Your task to perform on an android device: Search for the new steph curry shoes on Amazon. Image 0: 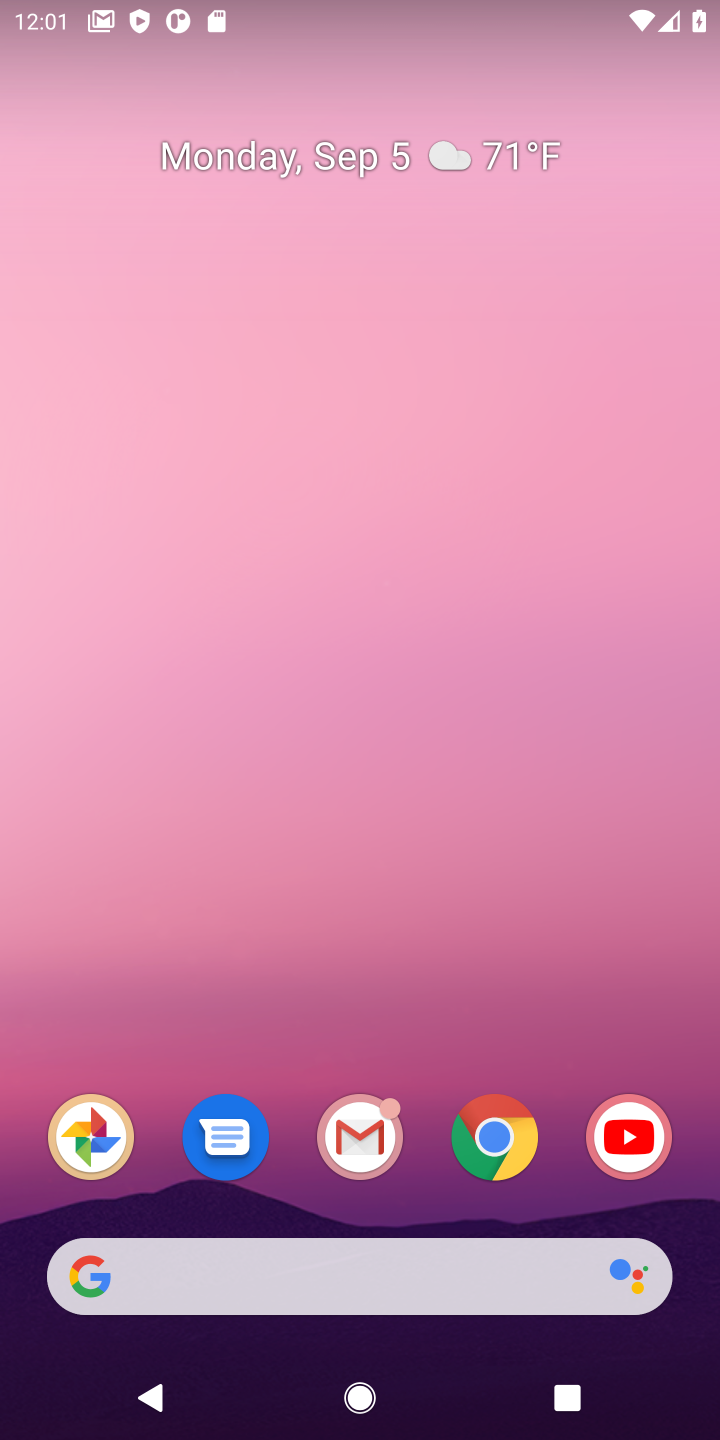
Step 0: click (497, 1140)
Your task to perform on an android device: Search for the new steph curry shoes on Amazon. Image 1: 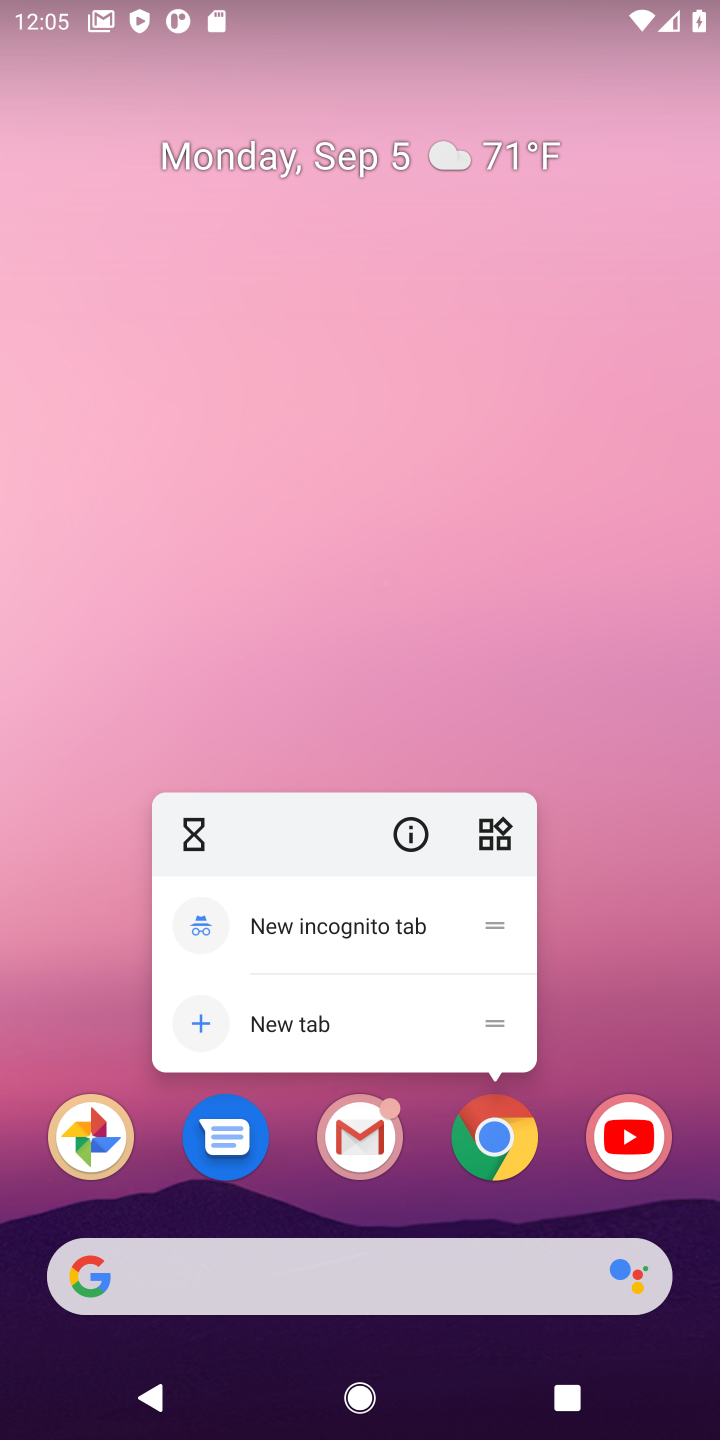
Step 1: click (469, 1142)
Your task to perform on an android device: Search for the new steph curry shoes on Amazon. Image 2: 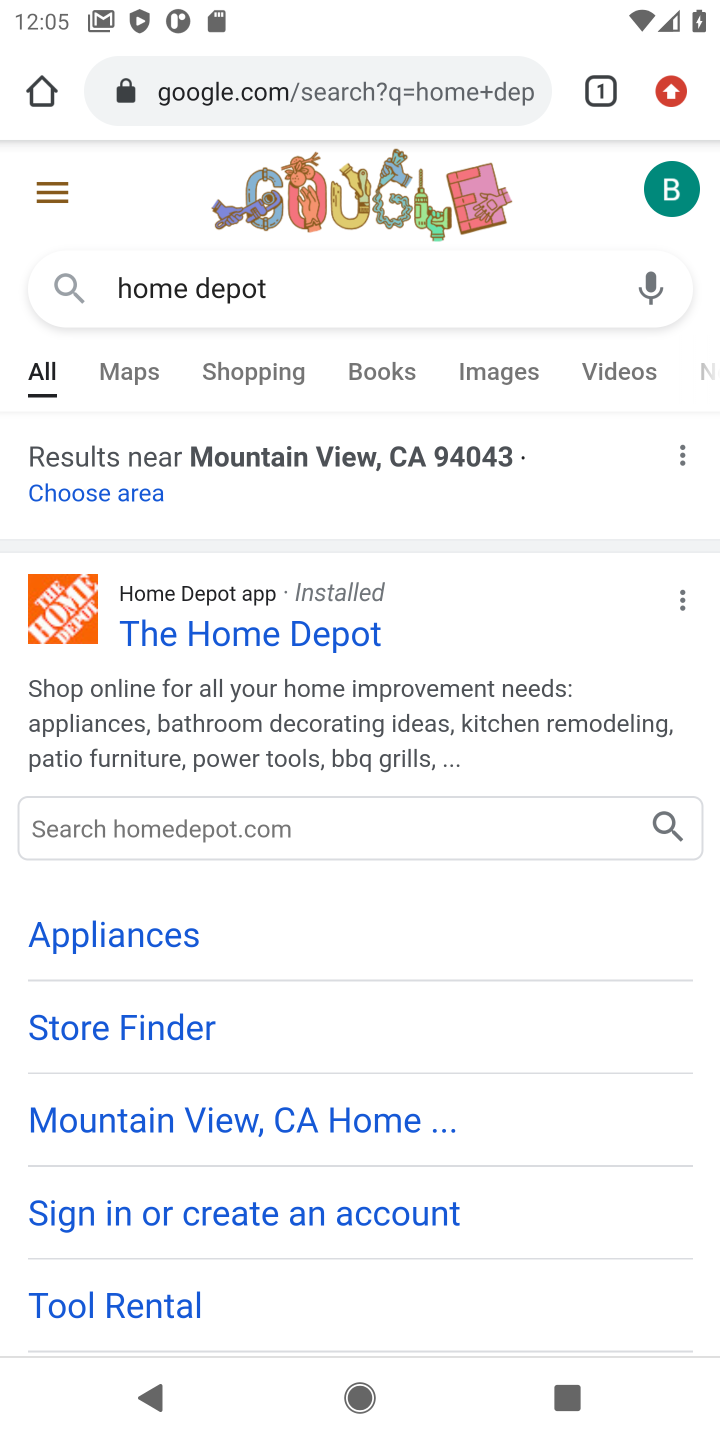
Step 2: click (359, 96)
Your task to perform on an android device: Search for the new steph curry shoes on Amazon. Image 3: 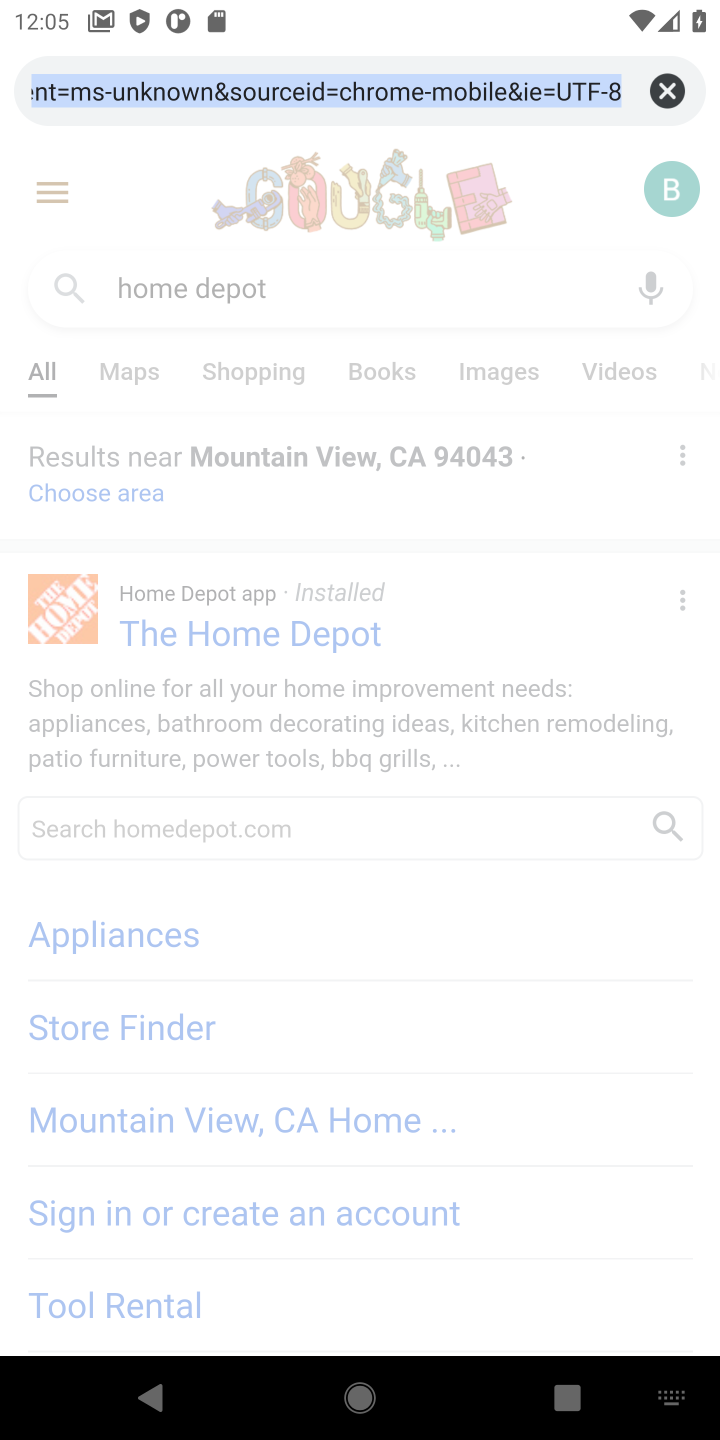
Step 3: type "amazon"
Your task to perform on an android device: Search for the new steph curry shoes on Amazon. Image 4: 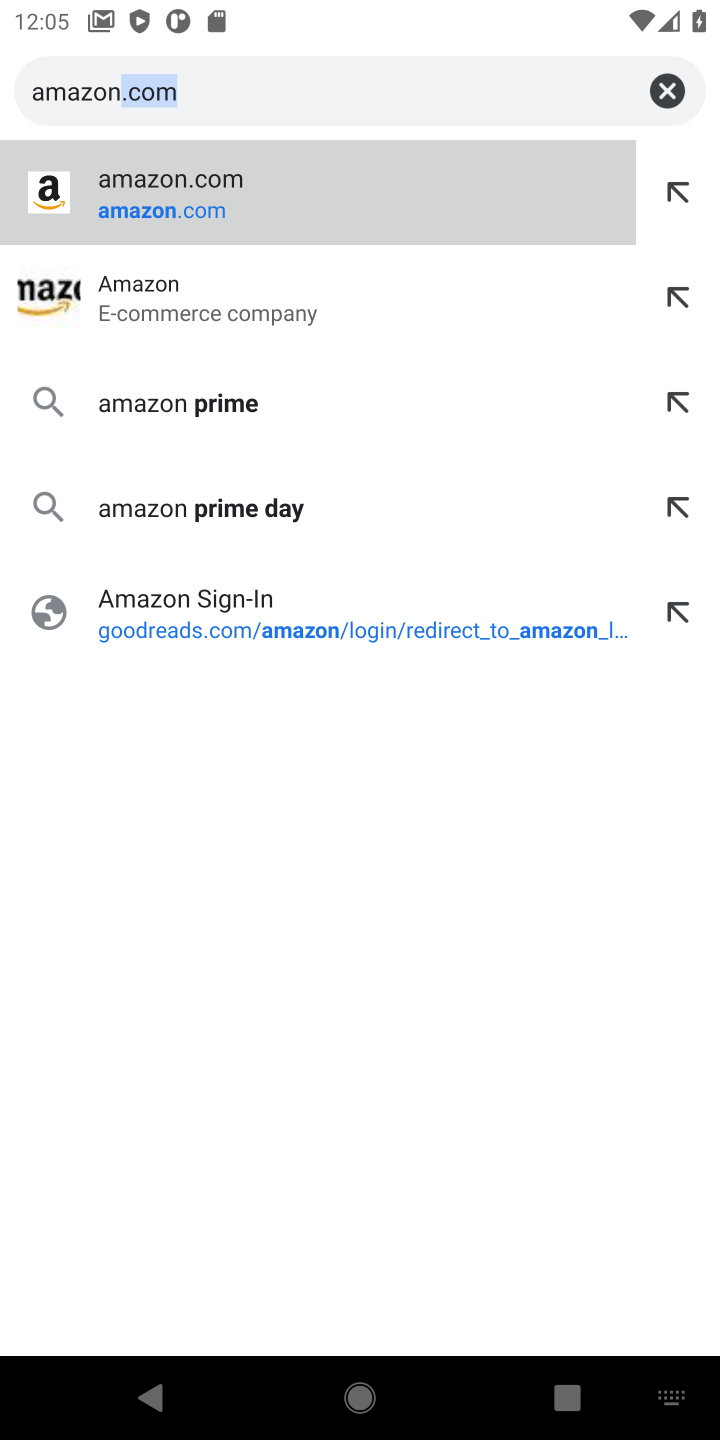
Step 4: click (262, 190)
Your task to perform on an android device: Search for the new steph curry shoes on Amazon. Image 5: 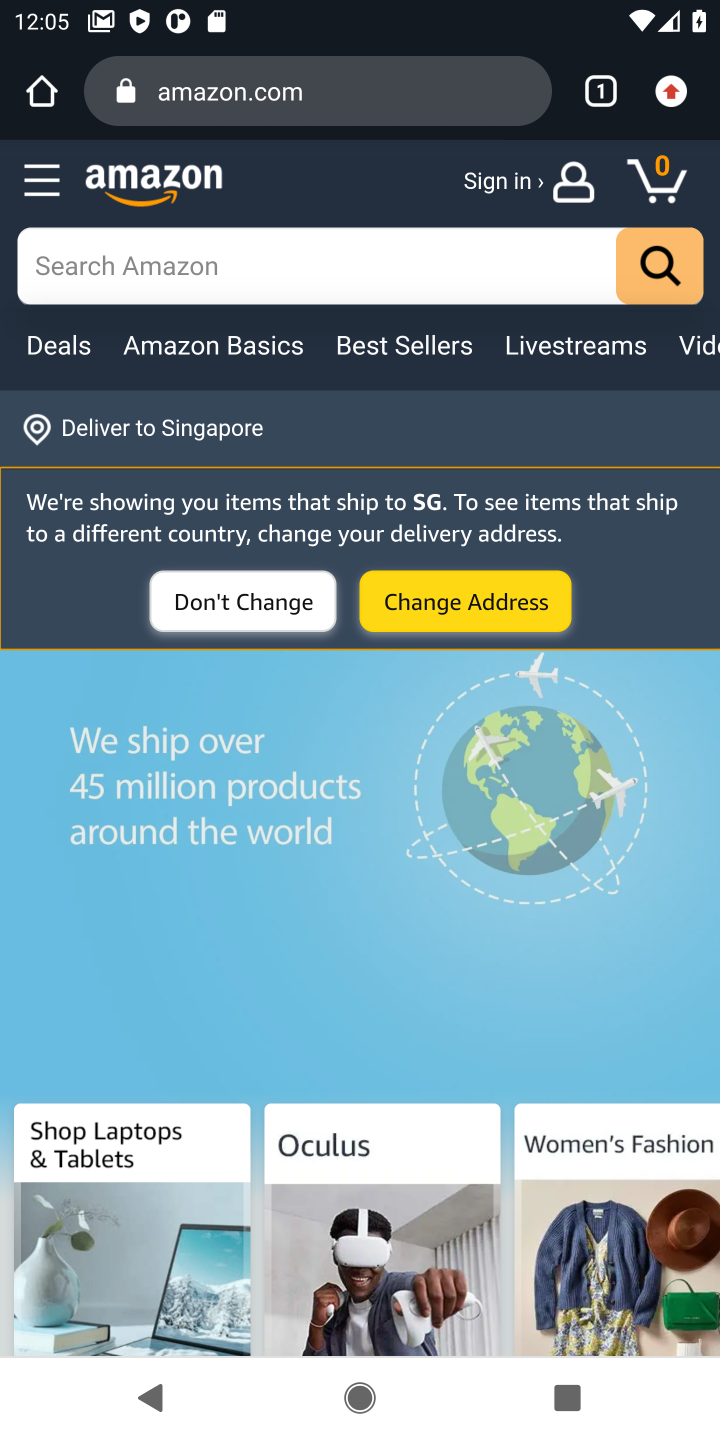
Step 5: click (302, 252)
Your task to perform on an android device: Search for the new steph curry shoes on Amazon. Image 6: 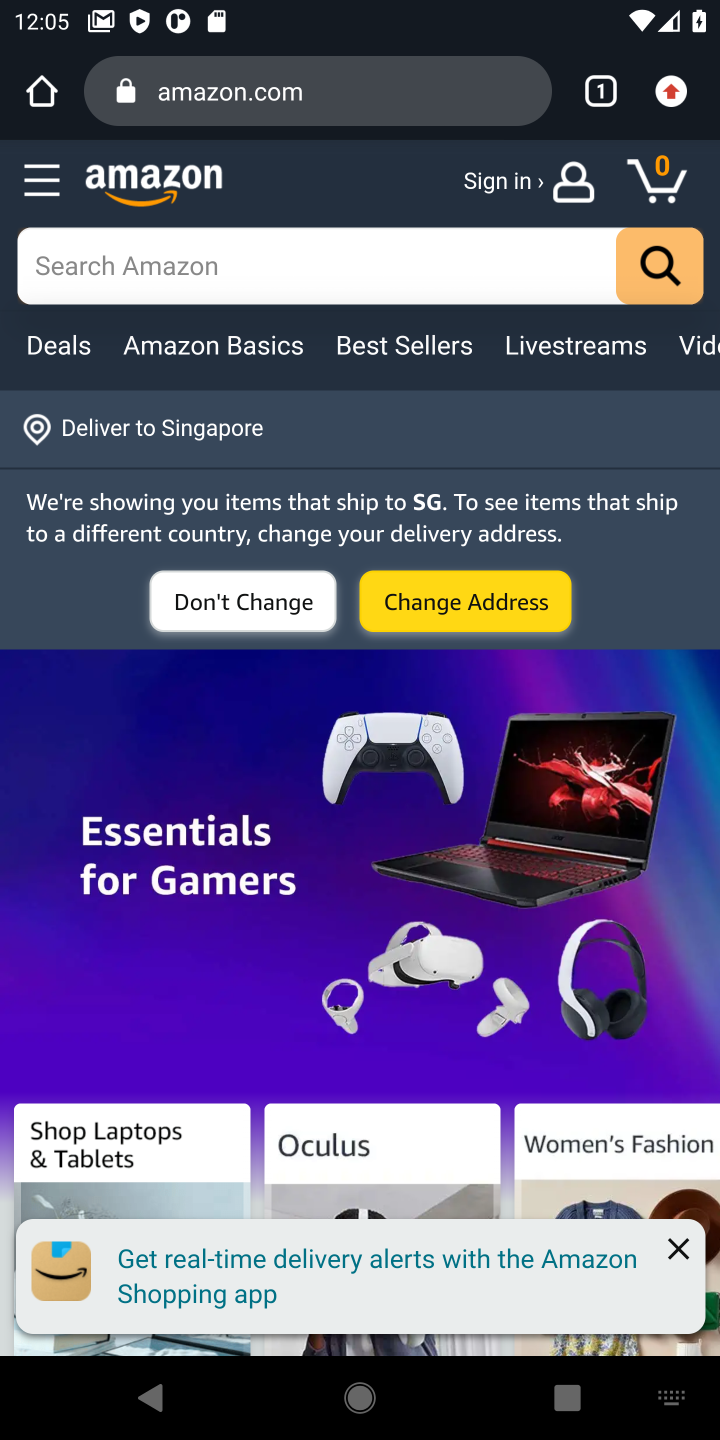
Step 6: click (256, 262)
Your task to perform on an android device: Search for the new steph curry shoes on Amazon. Image 7: 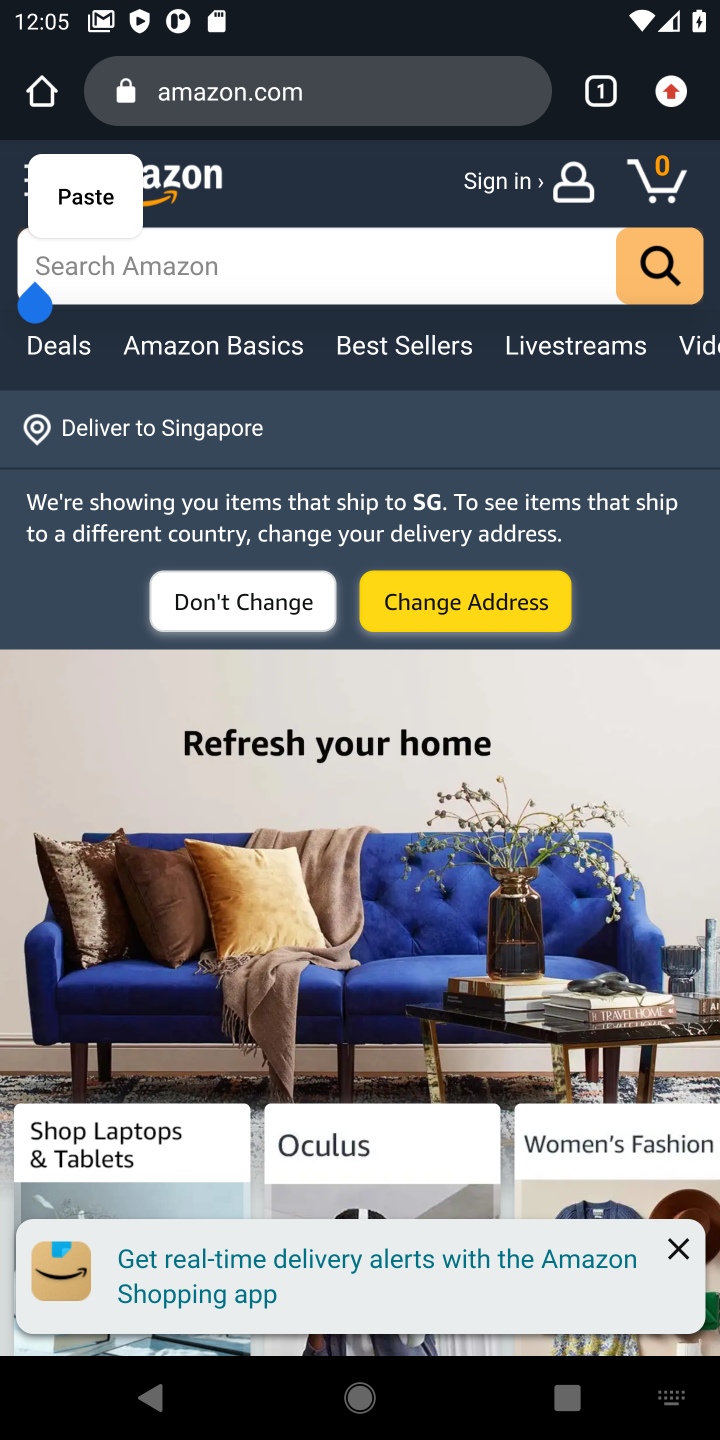
Step 7: click (299, 270)
Your task to perform on an android device: Search for the new steph curry shoes on Amazon. Image 8: 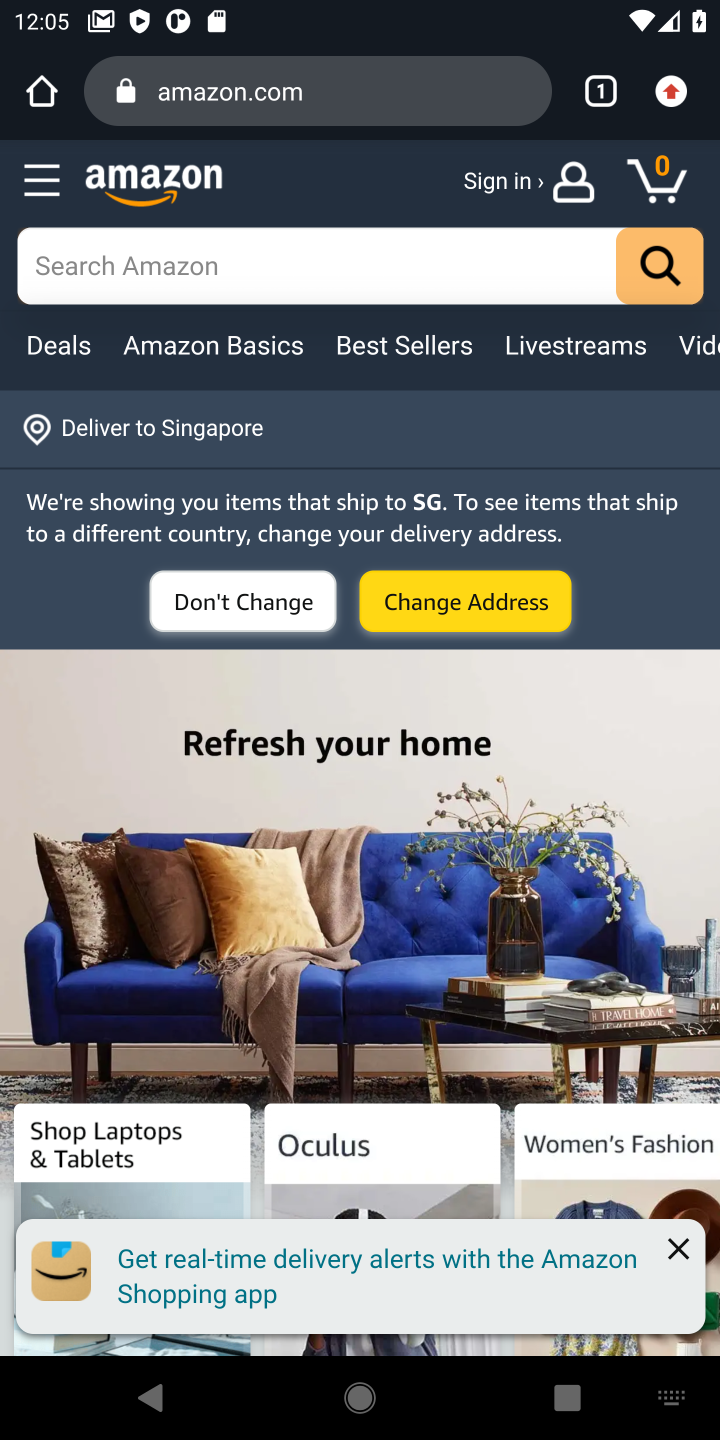
Step 8: type "new steph curry shoes"
Your task to perform on an android device: Search for the new steph curry shoes on Amazon. Image 9: 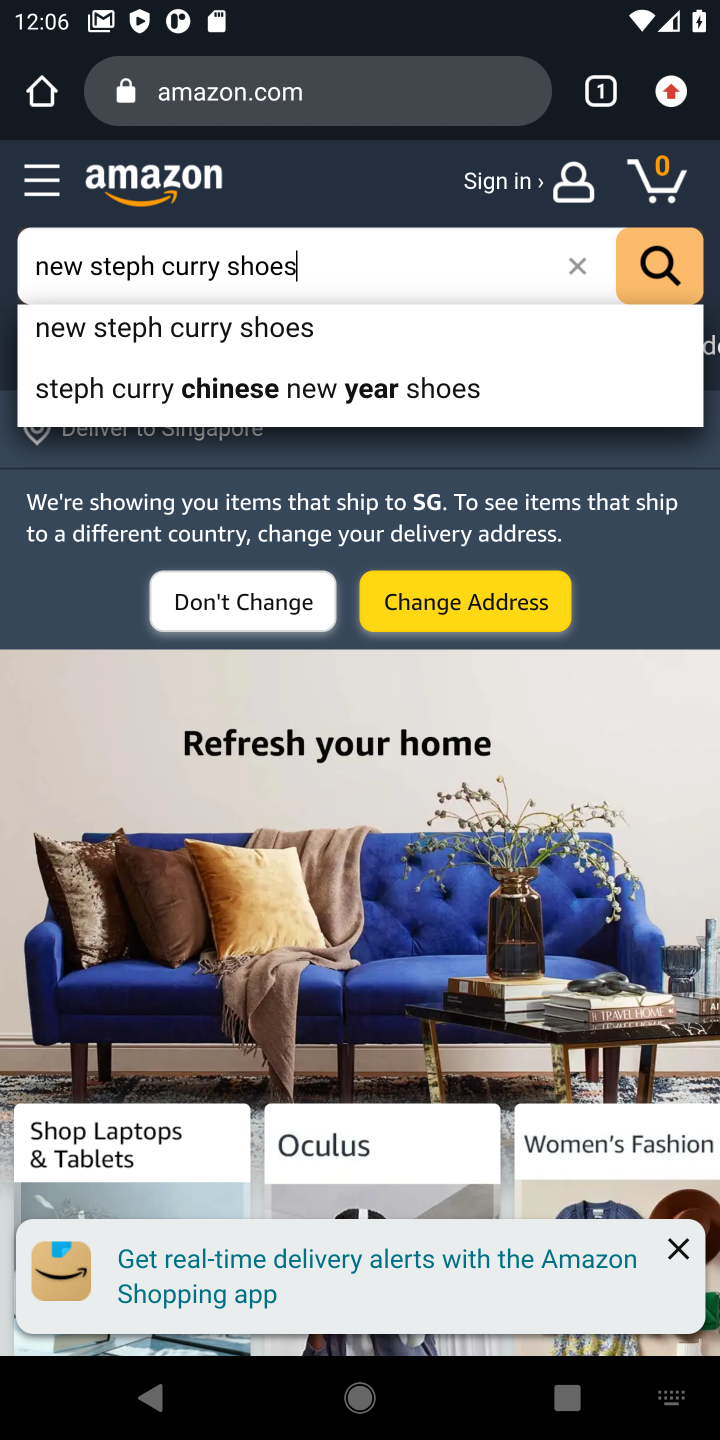
Step 9: click (272, 316)
Your task to perform on an android device: Search for the new steph curry shoes on Amazon. Image 10: 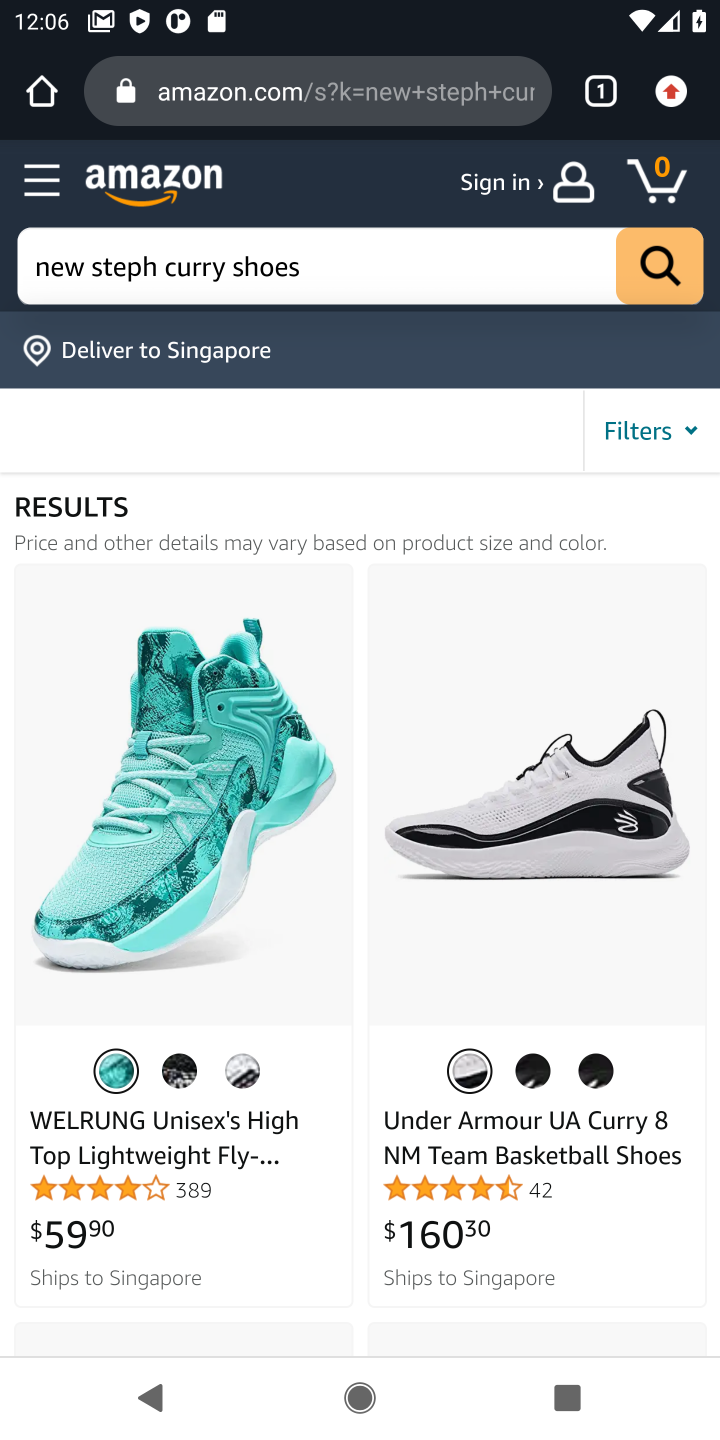
Step 10: task complete